Your task to perform on an android device: all mails in gmail Image 0: 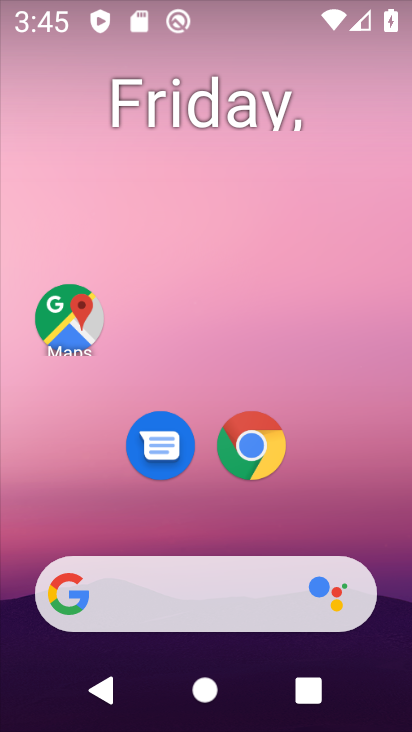
Step 0: drag from (394, 608) to (259, 0)
Your task to perform on an android device: all mails in gmail Image 1: 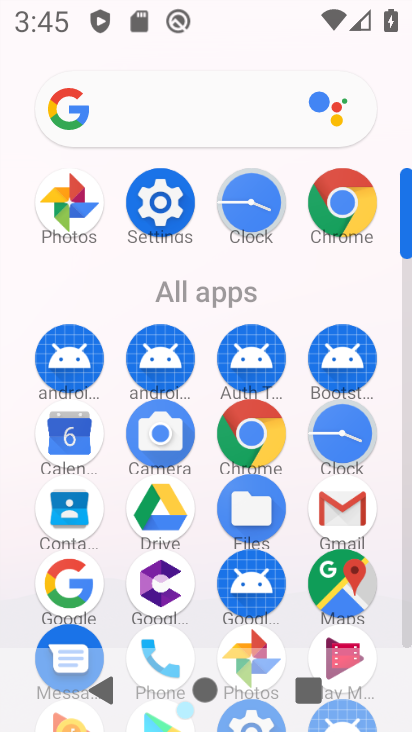
Step 1: drag from (17, 620) to (24, 335)
Your task to perform on an android device: all mails in gmail Image 2: 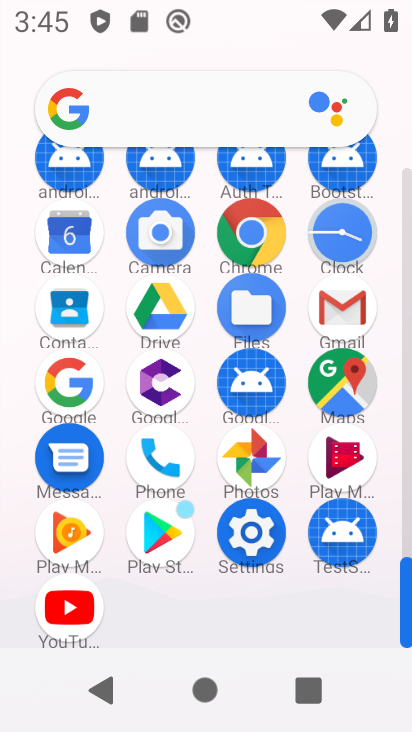
Step 2: click (342, 301)
Your task to perform on an android device: all mails in gmail Image 3: 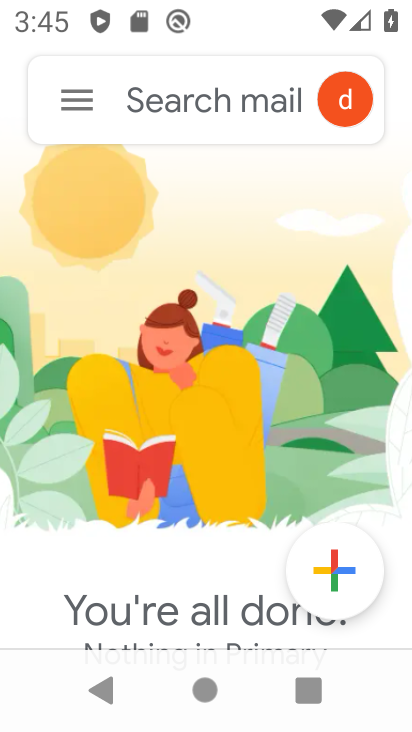
Step 3: click (88, 96)
Your task to perform on an android device: all mails in gmail Image 4: 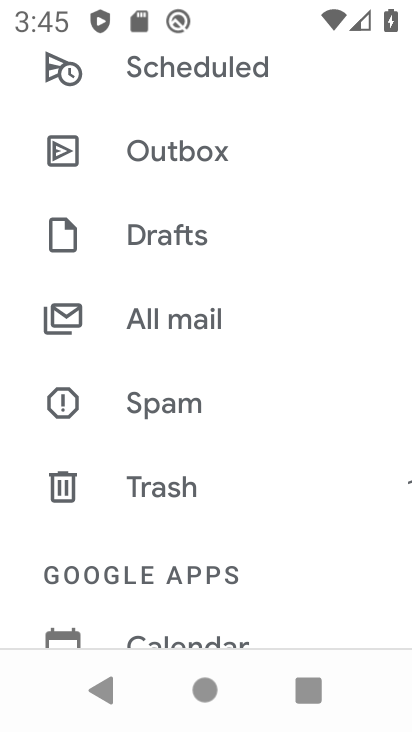
Step 4: click (220, 324)
Your task to perform on an android device: all mails in gmail Image 5: 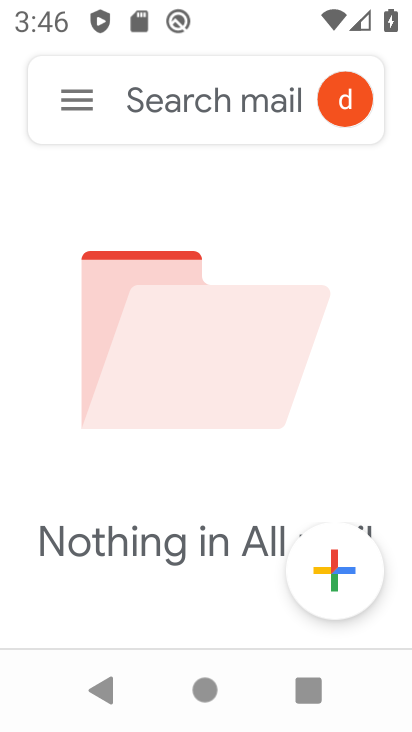
Step 5: task complete